Your task to perform on an android device: Open maps Image 0: 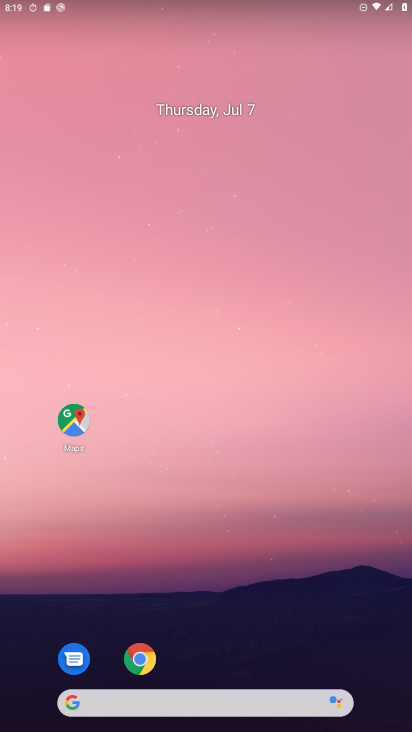
Step 0: drag from (388, 683) to (303, 15)
Your task to perform on an android device: Open maps Image 1: 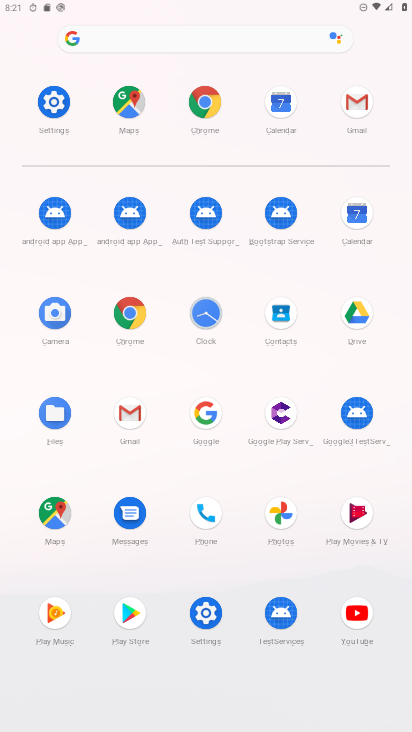
Step 1: click (68, 519)
Your task to perform on an android device: Open maps Image 2: 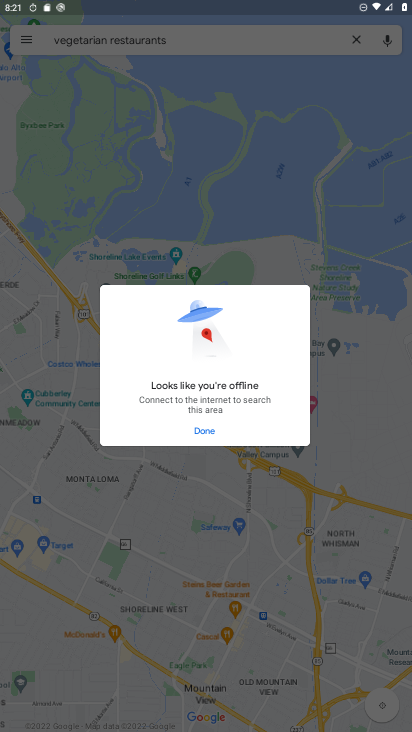
Step 2: press back button
Your task to perform on an android device: Open maps Image 3: 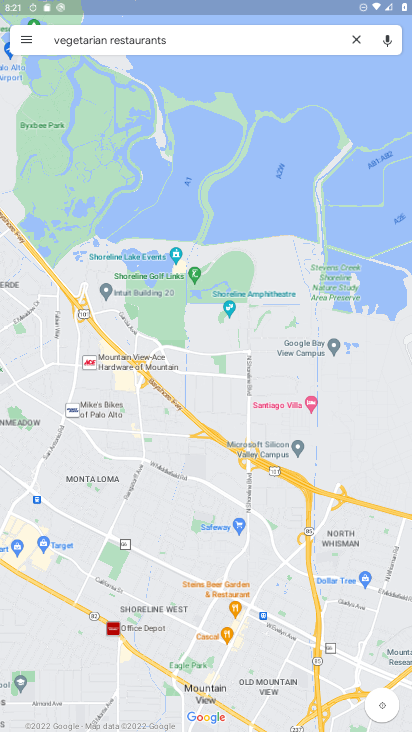
Step 3: click (352, 35)
Your task to perform on an android device: Open maps Image 4: 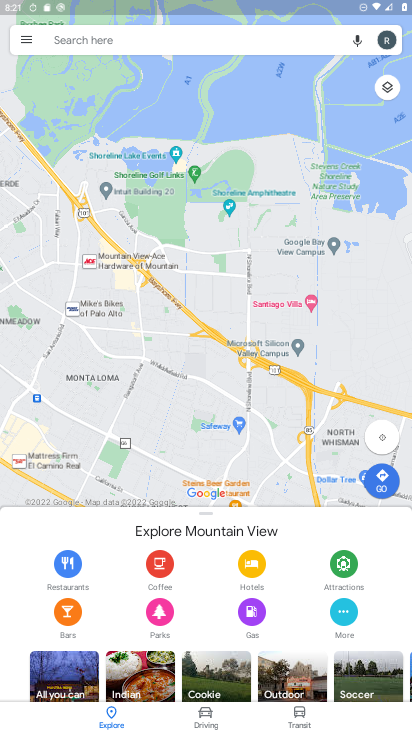
Step 4: task complete